Your task to perform on an android device: Search for Mexican restaurants on Maps Image 0: 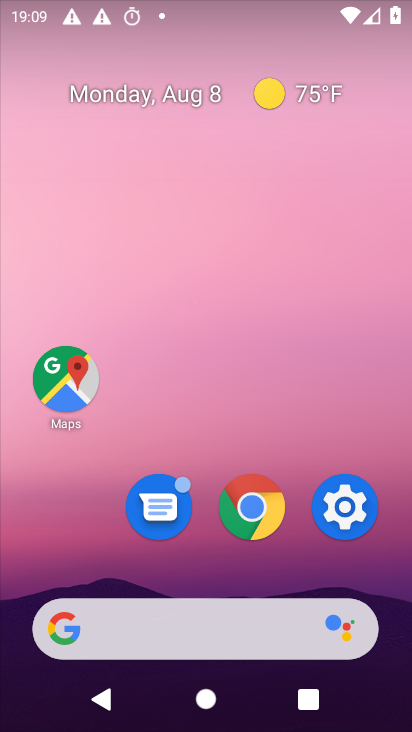
Step 0: drag from (321, 662) to (269, 183)
Your task to perform on an android device: Search for Mexican restaurants on Maps Image 1: 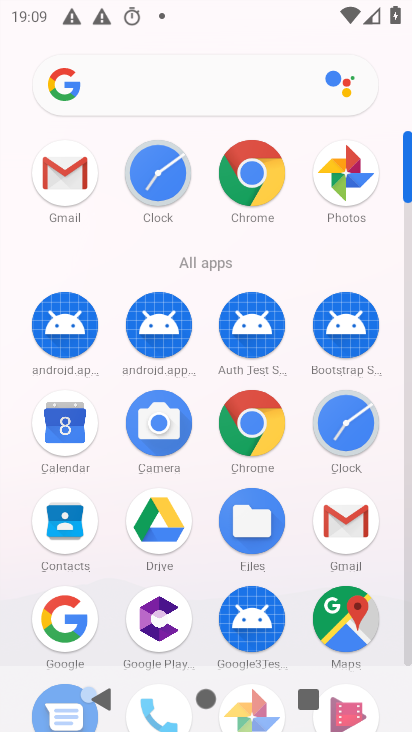
Step 1: click (345, 634)
Your task to perform on an android device: Search for Mexican restaurants on Maps Image 2: 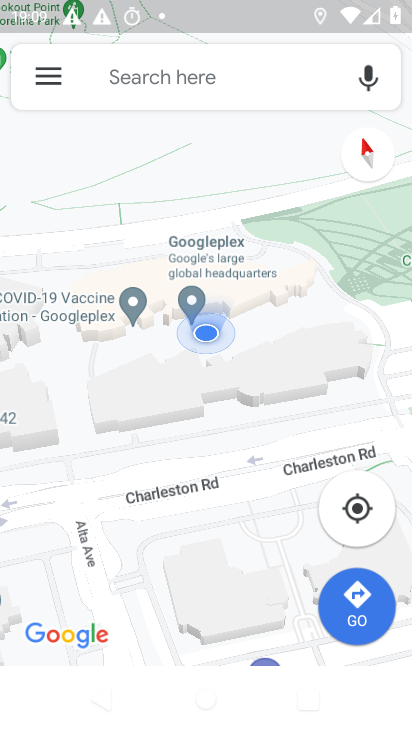
Step 2: click (197, 74)
Your task to perform on an android device: Search for Mexican restaurants on Maps Image 3: 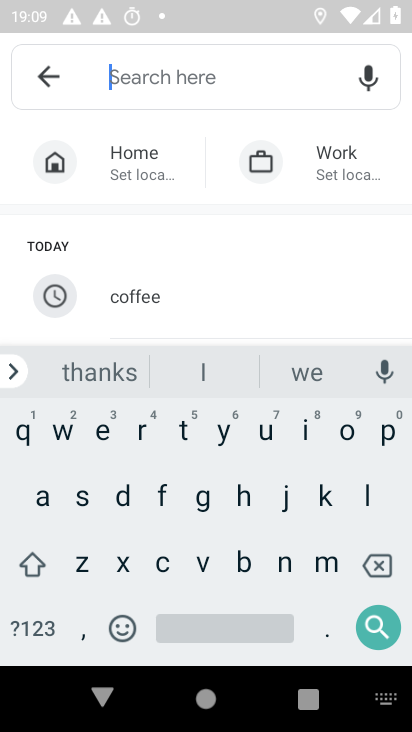
Step 3: click (333, 572)
Your task to perform on an android device: Search for Mexican restaurants on Maps Image 4: 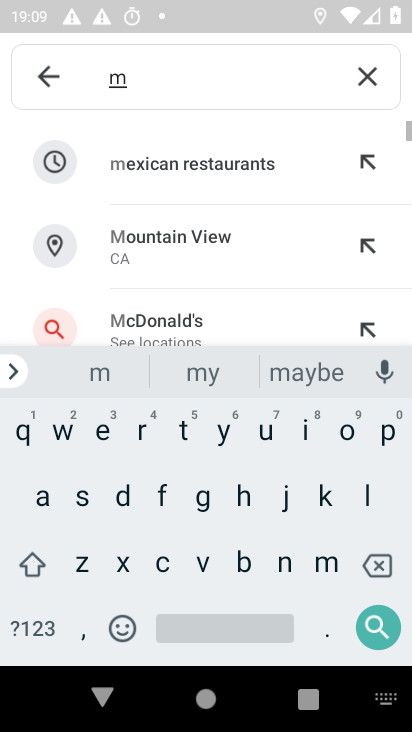
Step 4: click (174, 168)
Your task to perform on an android device: Search for Mexican restaurants on Maps Image 5: 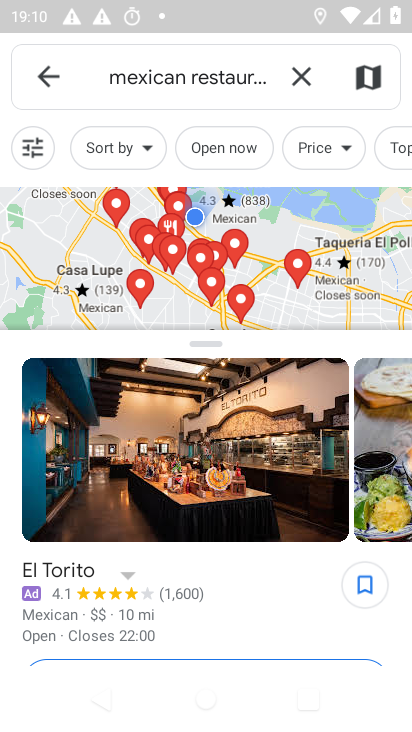
Step 5: task complete